Your task to perform on an android device: Open calendar and show me the first week of next month Image 0: 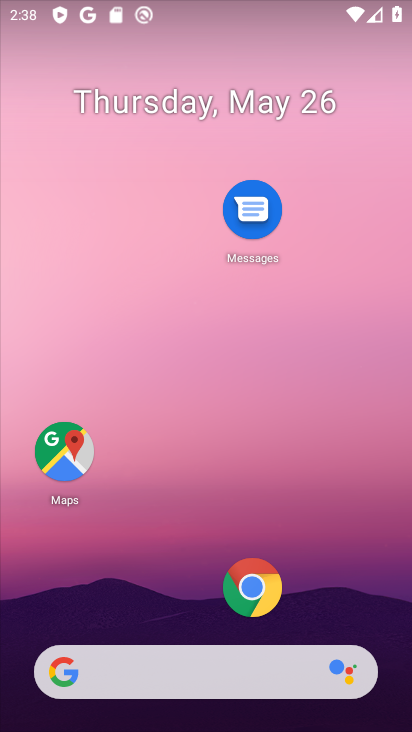
Step 0: drag from (182, 599) to (187, 169)
Your task to perform on an android device: Open calendar and show me the first week of next month Image 1: 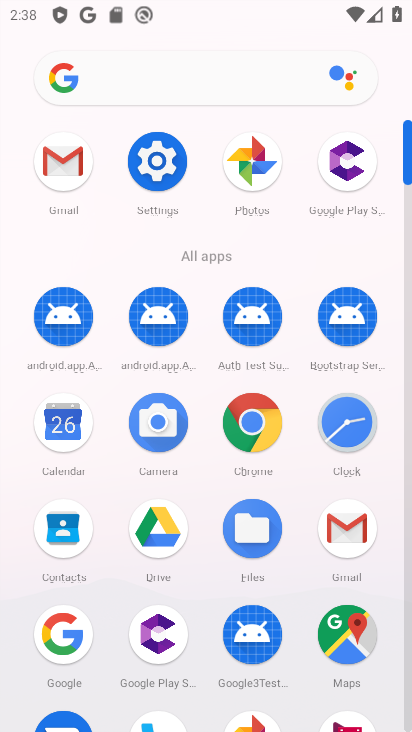
Step 1: drag from (211, 612) to (232, 503)
Your task to perform on an android device: Open calendar and show me the first week of next month Image 2: 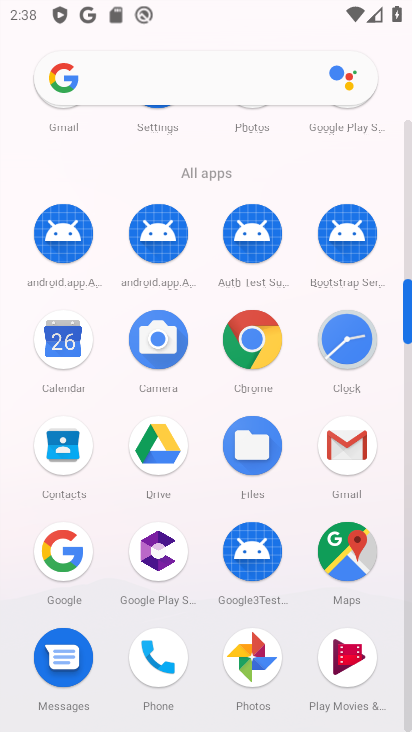
Step 2: click (57, 354)
Your task to perform on an android device: Open calendar and show me the first week of next month Image 3: 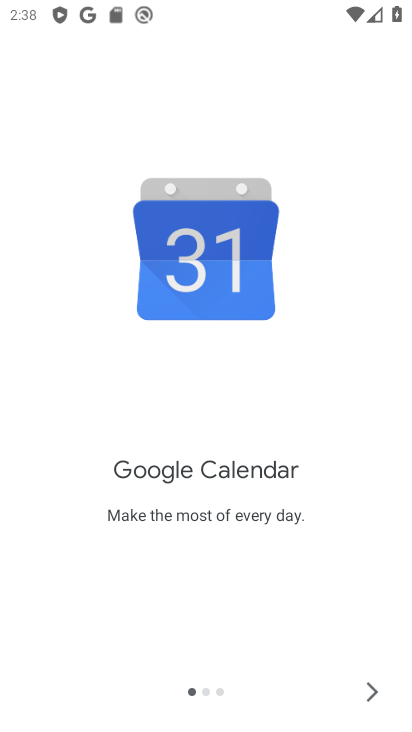
Step 3: click (375, 692)
Your task to perform on an android device: Open calendar and show me the first week of next month Image 4: 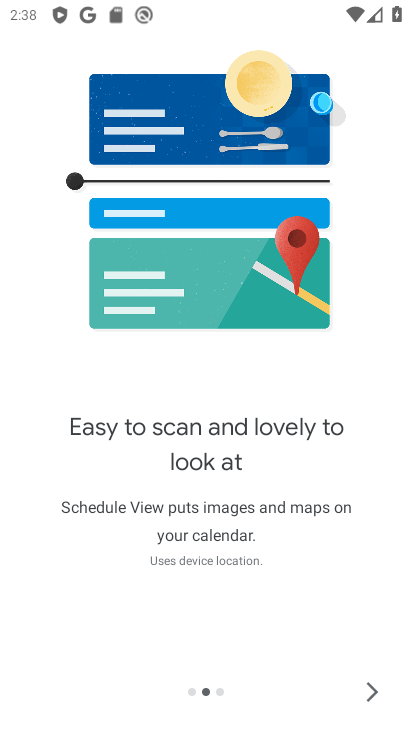
Step 4: click (375, 692)
Your task to perform on an android device: Open calendar and show me the first week of next month Image 5: 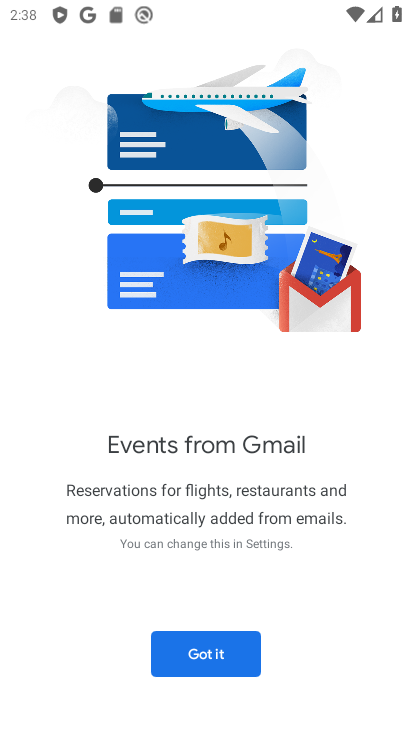
Step 5: click (229, 646)
Your task to perform on an android device: Open calendar and show me the first week of next month Image 6: 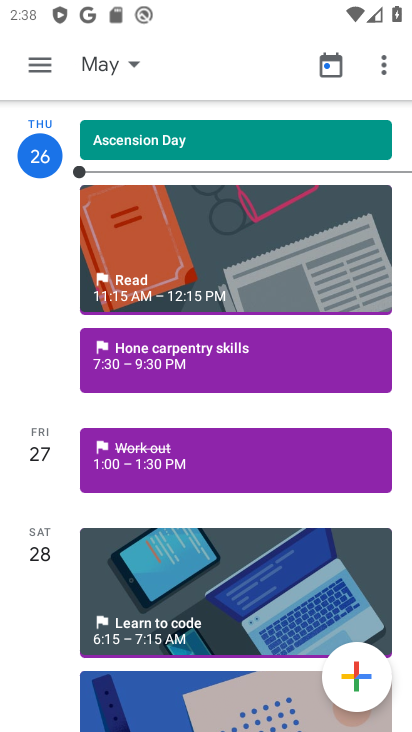
Step 6: click (32, 61)
Your task to perform on an android device: Open calendar and show me the first week of next month Image 7: 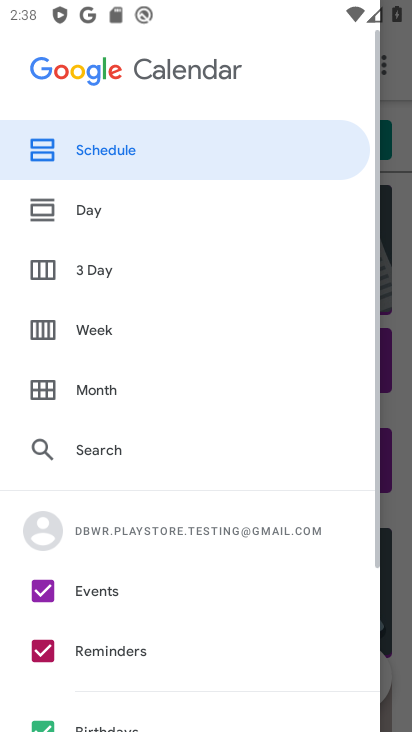
Step 7: click (112, 320)
Your task to perform on an android device: Open calendar and show me the first week of next month Image 8: 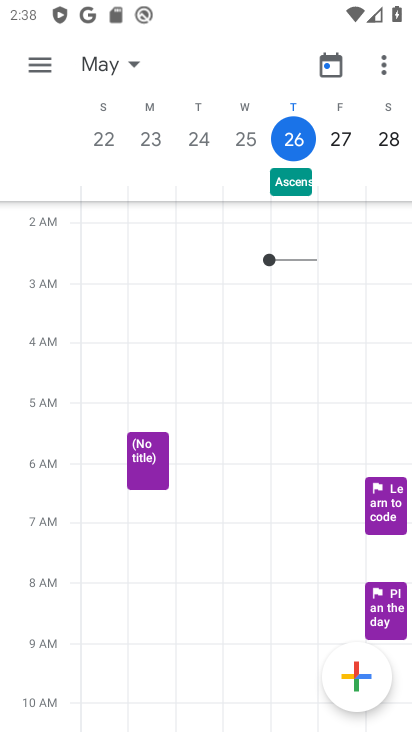
Step 8: task complete